Your task to perform on an android device: Do I have any events tomorrow? Image 0: 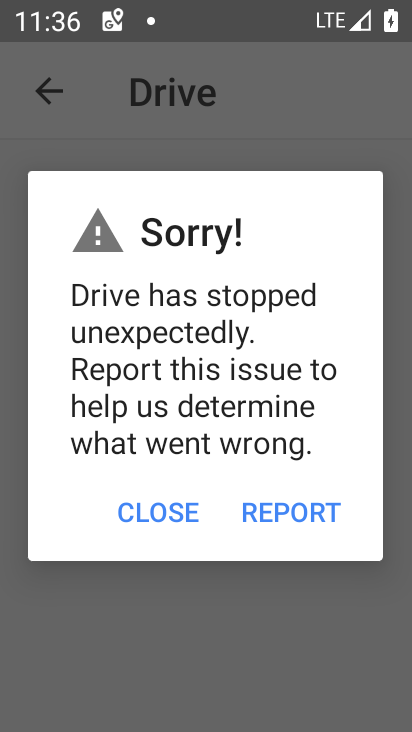
Step 0: press home button
Your task to perform on an android device: Do I have any events tomorrow? Image 1: 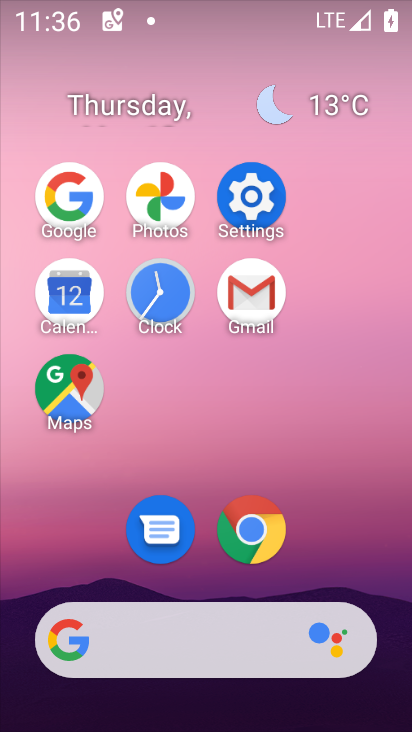
Step 1: click (65, 312)
Your task to perform on an android device: Do I have any events tomorrow? Image 2: 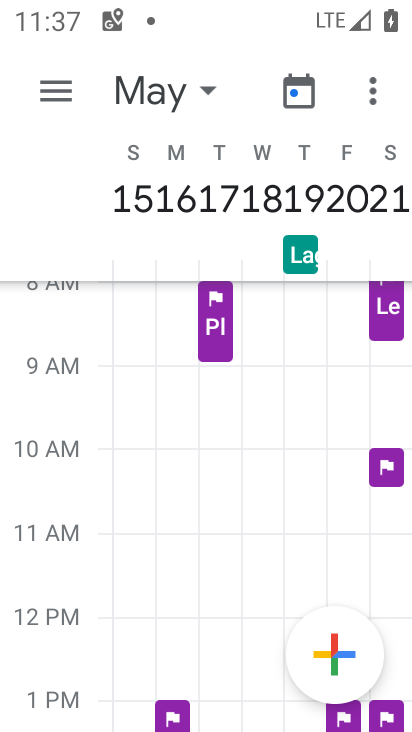
Step 2: click (132, 190)
Your task to perform on an android device: Do I have any events tomorrow? Image 3: 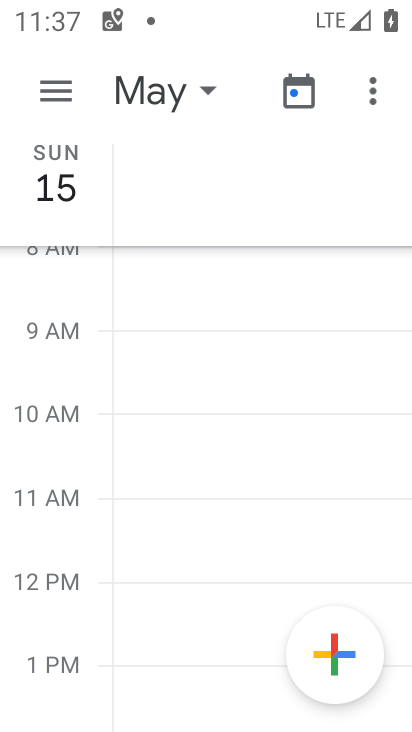
Step 3: task complete